Your task to perform on an android device: check battery use Image 0: 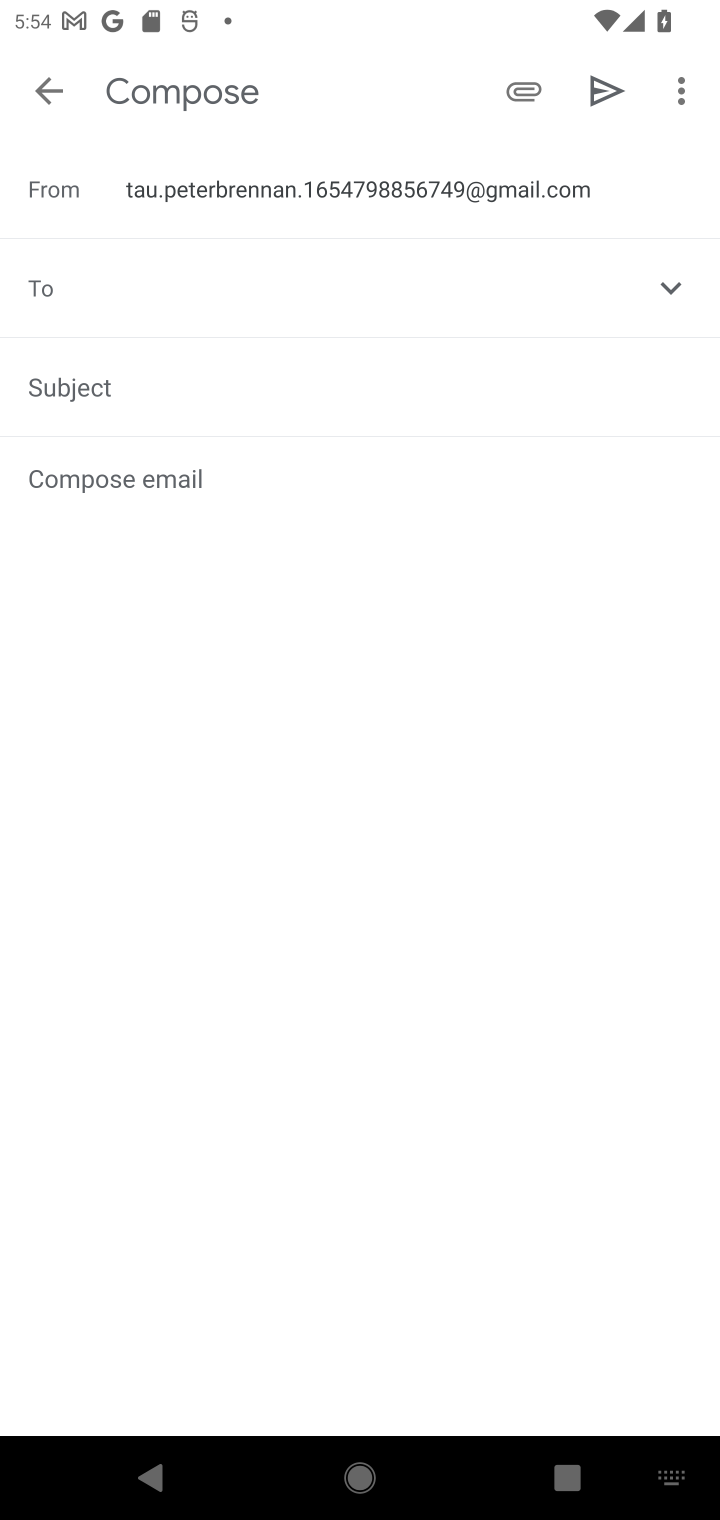
Step 0: press home button
Your task to perform on an android device: check battery use Image 1: 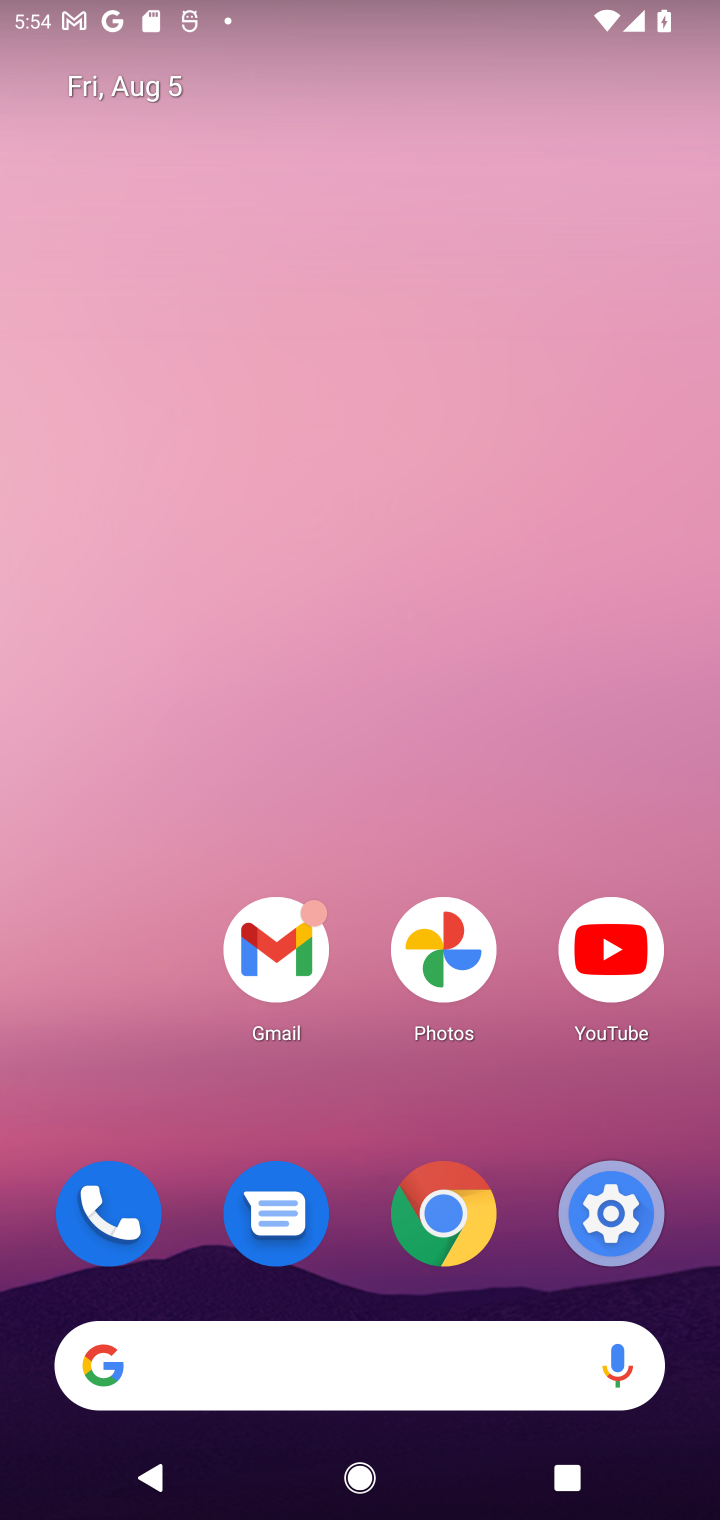
Step 1: click (627, 1259)
Your task to perform on an android device: check battery use Image 2: 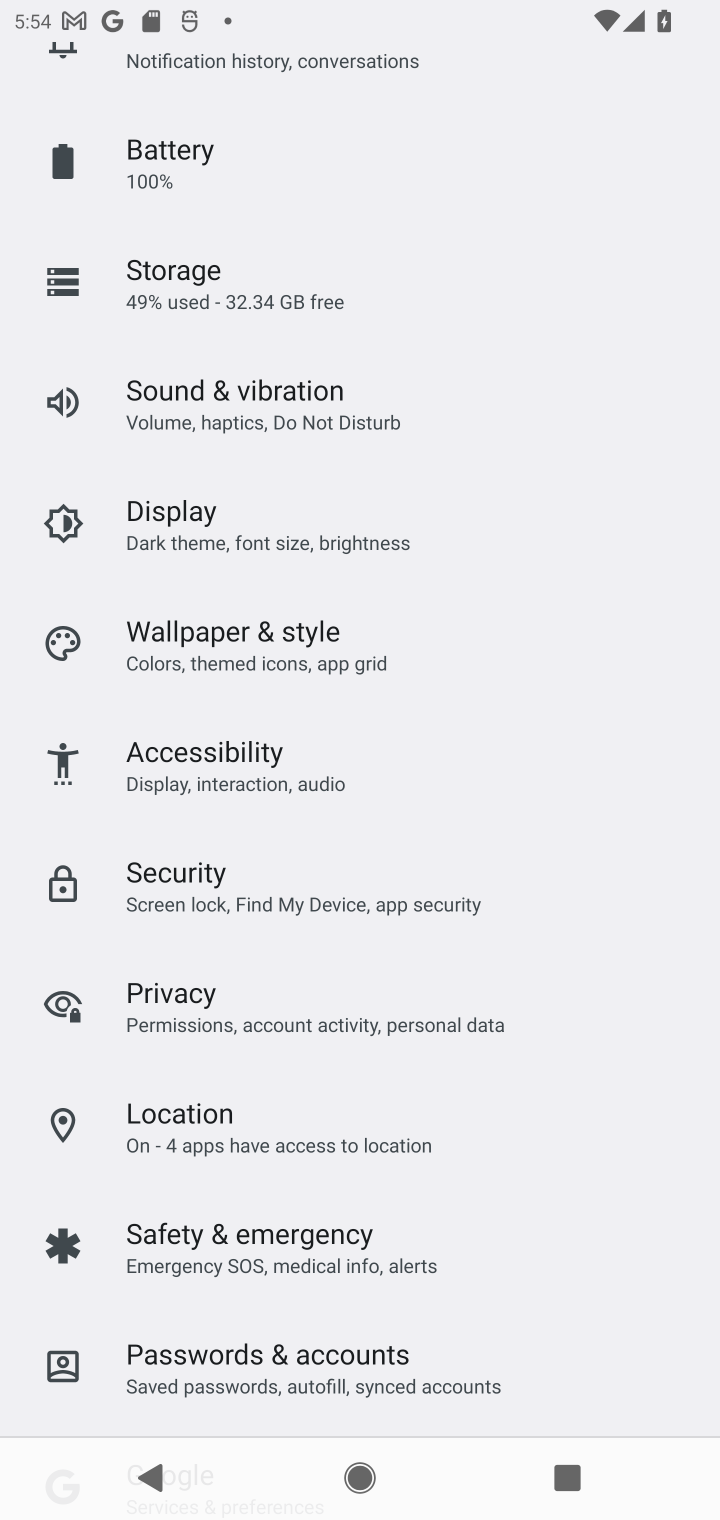
Step 2: click (226, 149)
Your task to perform on an android device: check battery use Image 3: 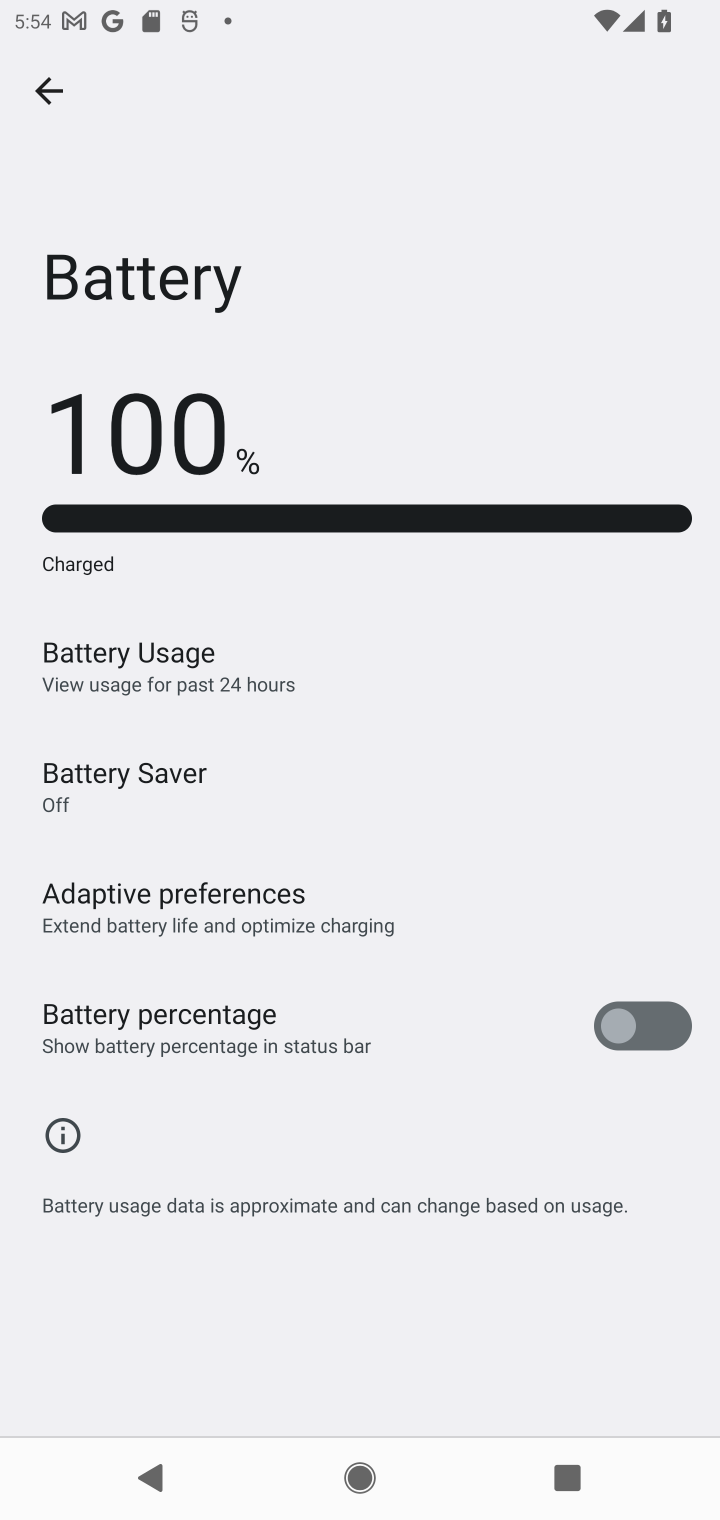
Step 3: click (316, 727)
Your task to perform on an android device: check battery use Image 4: 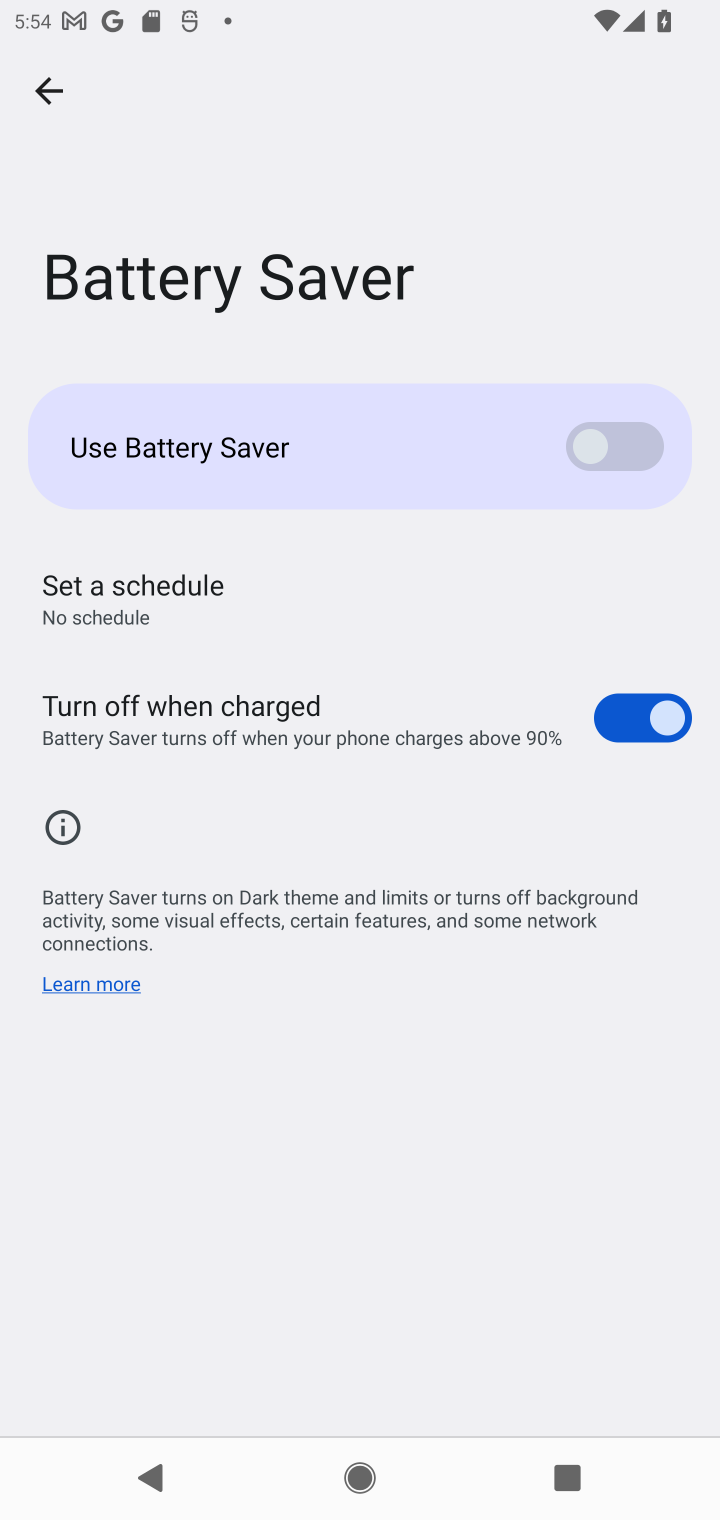
Step 4: task complete